Your task to perform on an android device: change notification settings in the gmail app Image 0: 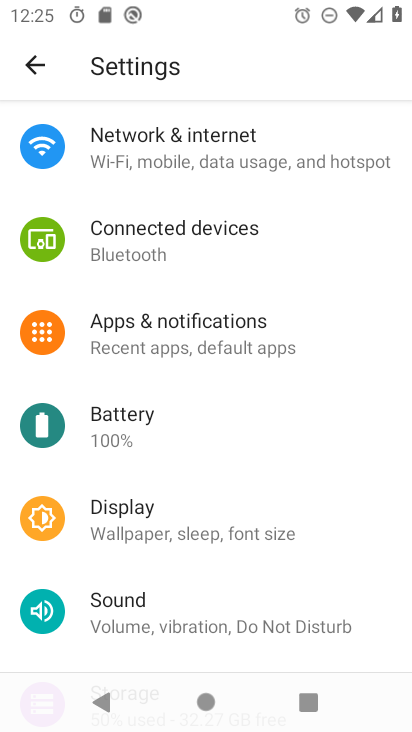
Step 0: press home button
Your task to perform on an android device: change notification settings in the gmail app Image 1: 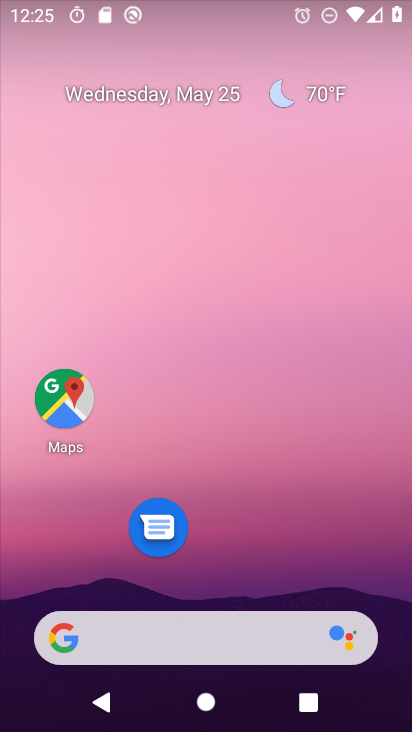
Step 1: drag from (254, 548) to (263, 112)
Your task to perform on an android device: change notification settings in the gmail app Image 2: 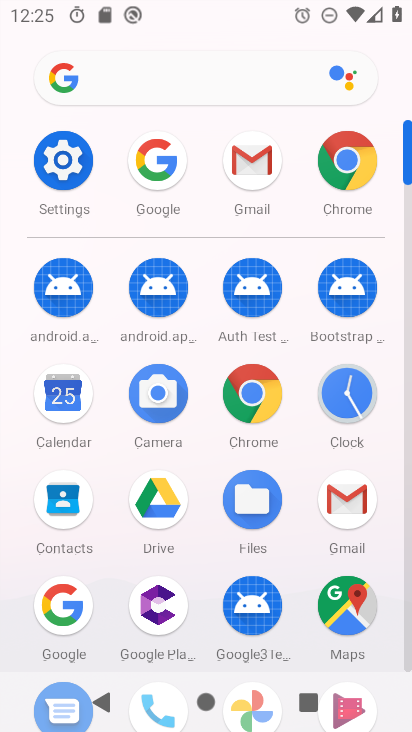
Step 2: click (260, 156)
Your task to perform on an android device: change notification settings in the gmail app Image 3: 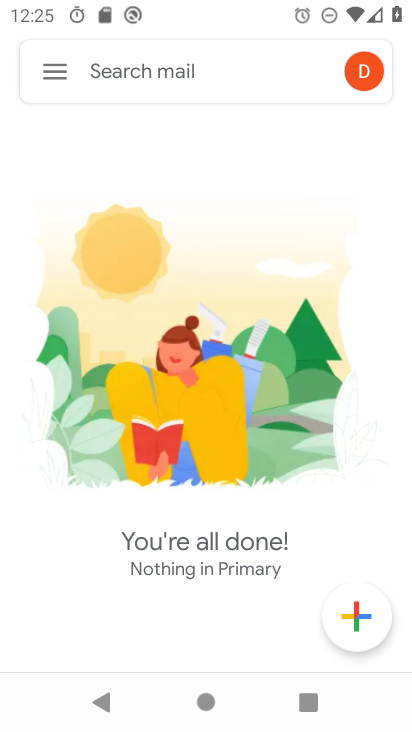
Step 3: click (60, 75)
Your task to perform on an android device: change notification settings in the gmail app Image 4: 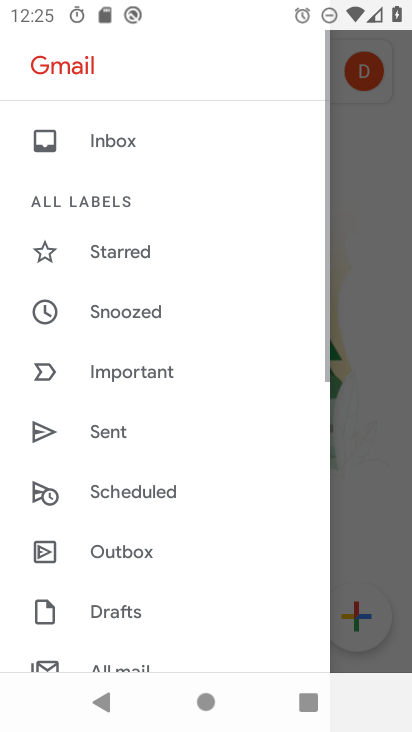
Step 4: drag from (194, 559) to (207, 199)
Your task to perform on an android device: change notification settings in the gmail app Image 5: 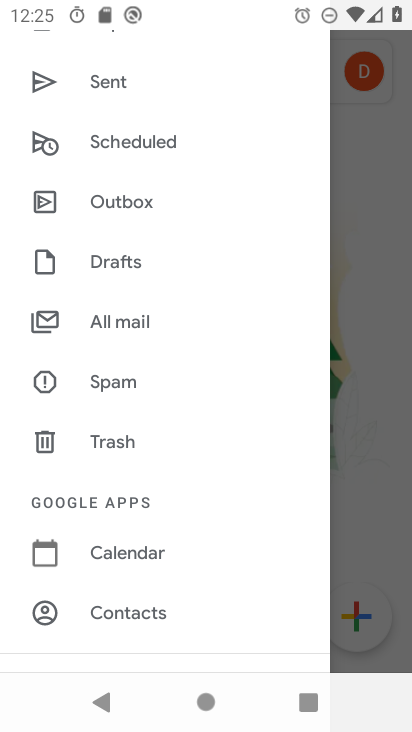
Step 5: drag from (176, 612) to (206, 335)
Your task to perform on an android device: change notification settings in the gmail app Image 6: 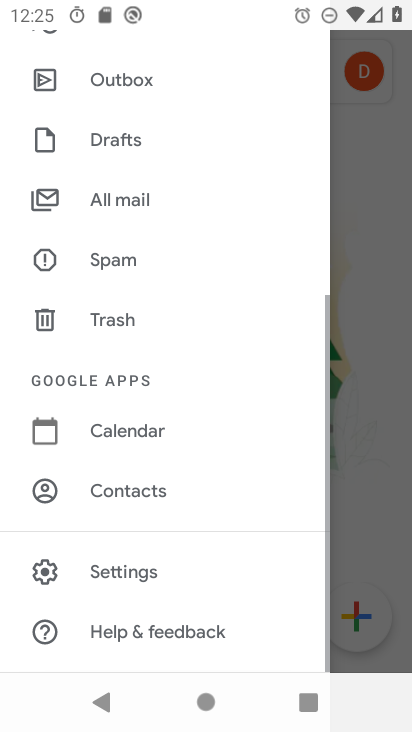
Step 6: click (152, 570)
Your task to perform on an android device: change notification settings in the gmail app Image 7: 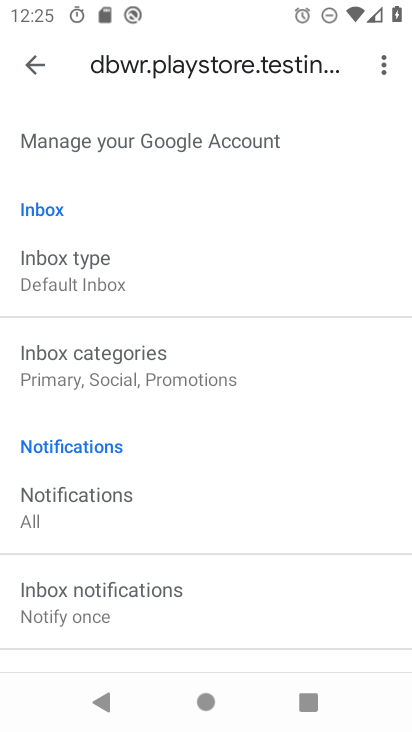
Step 7: drag from (217, 537) to (231, 439)
Your task to perform on an android device: change notification settings in the gmail app Image 8: 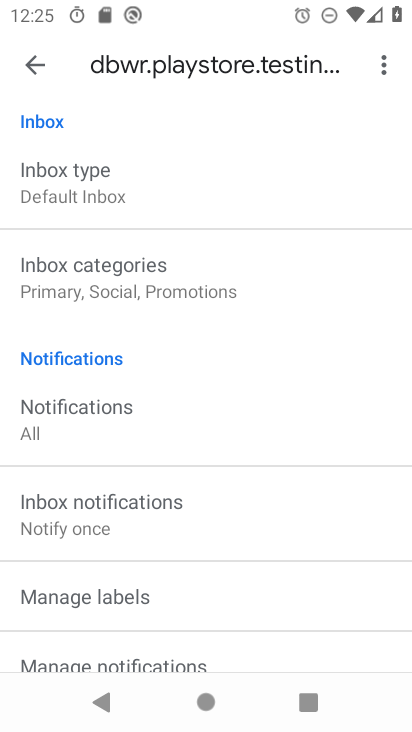
Step 8: click (58, 426)
Your task to perform on an android device: change notification settings in the gmail app Image 9: 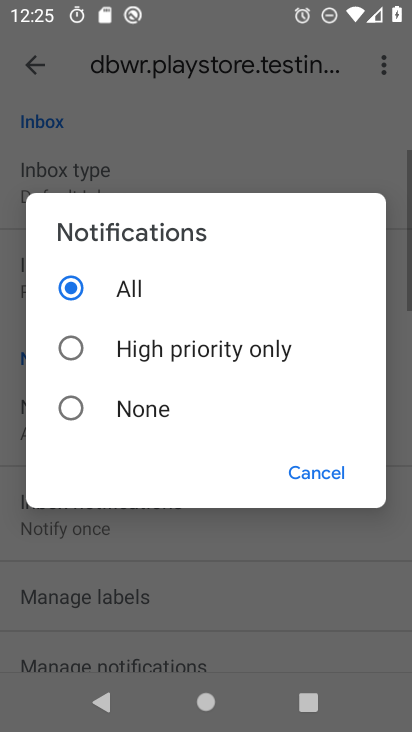
Step 9: click (103, 411)
Your task to perform on an android device: change notification settings in the gmail app Image 10: 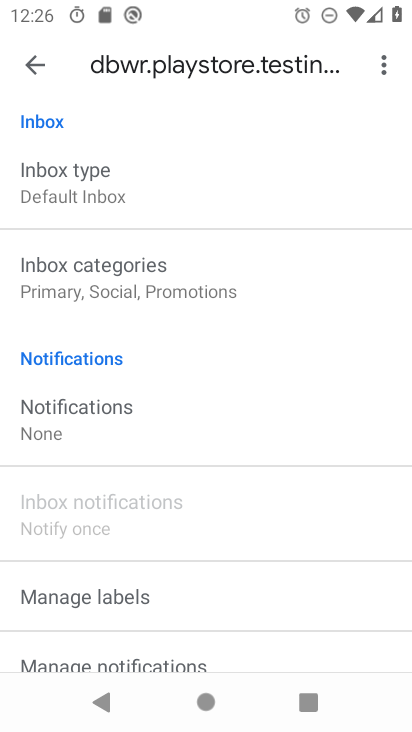
Step 10: task complete